Your task to perform on an android device: turn off improve location accuracy Image 0: 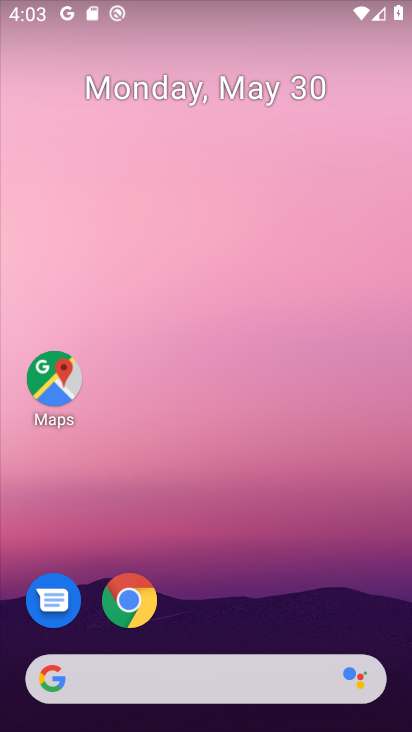
Step 0: drag from (383, 622) to (317, 106)
Your task to perform on an android device: turn off improve location accuracy Image 1: 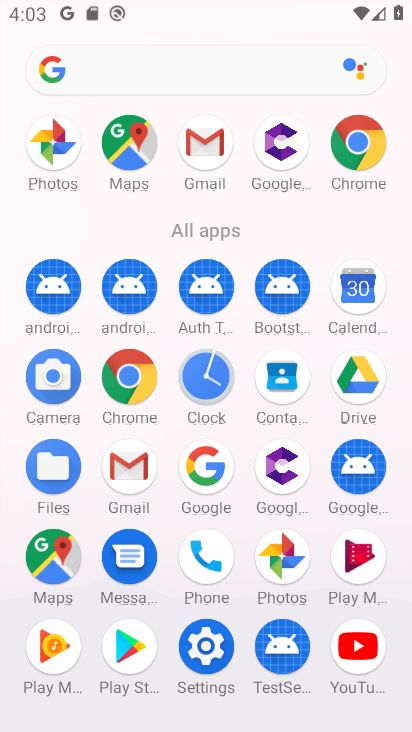
Step 1: click (209, 648)
Your task to perform on an android device: turn off improve location accuracy Image 2: 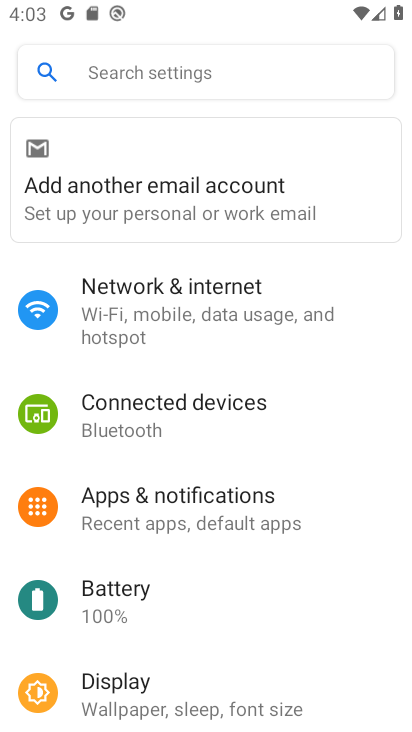
Step 2: drag from (276, 604) to (266, 120)
Your task to perform on an android device: turn off improve location accuracy Image 3: 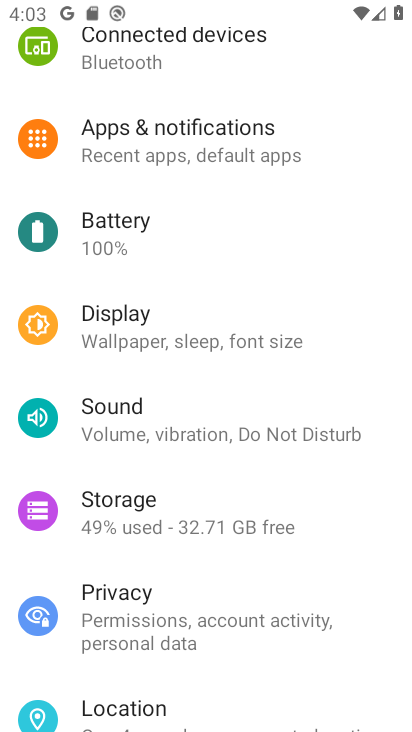
Step 3: click (135, 700)
Your task to perform on an android device: turn off improve location accuracy Image 4: 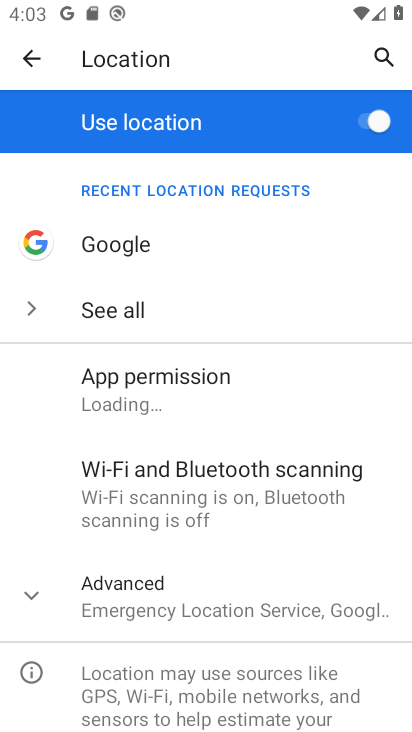
Step 4: click (152, 596)
Your task to perform on an android device: turn off improve location accuracy Image 5: 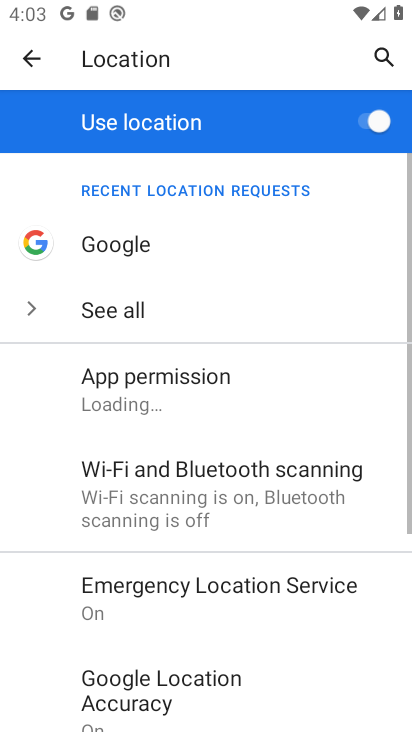
Step 5: drag from (249, 617) to (211, 217)
Your task to perform on an android device: turn off improve location accuracy Image 6: 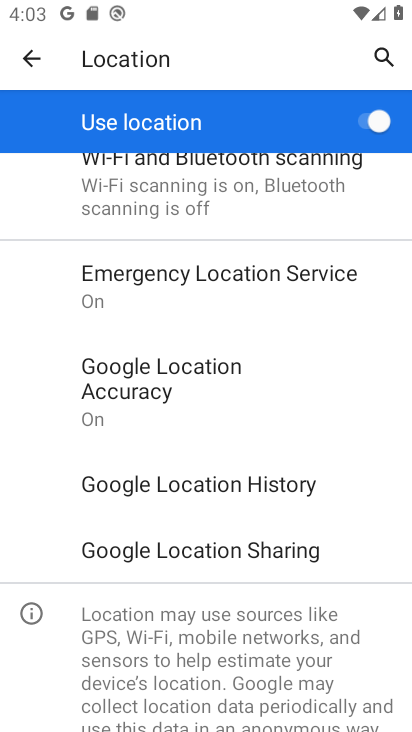
Step 6: click (164, 379)
Your task to perform on an android device: turn off improve location accuracy Image 7: 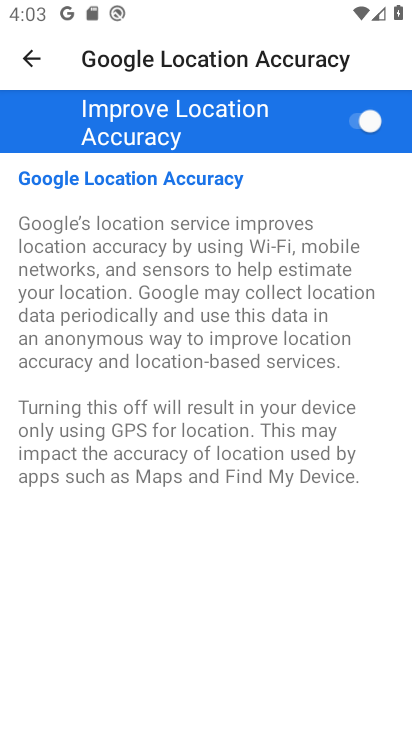
Step 7: click (354, 120)
Your task to perform on an android device: turn off improve location accuracy Image 8: 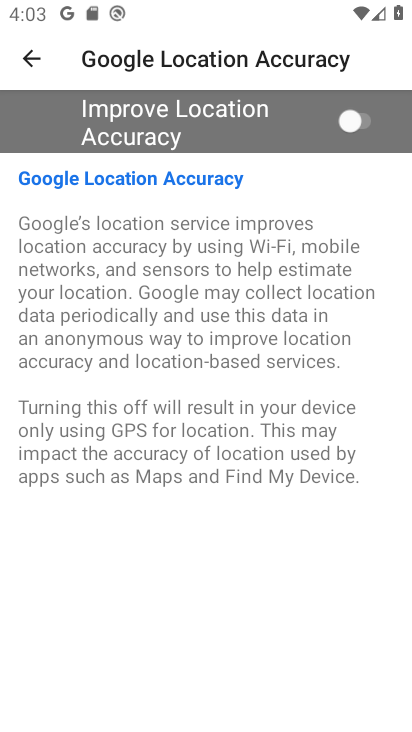
Step 8: task complete